Your task to perform on an android device: When is my next meeting? Image 0: 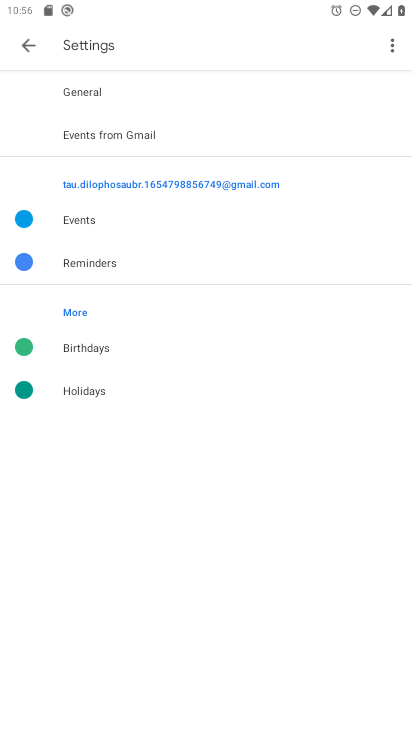
Step 0: drag from (210, 599) to (291, 310)
Your task to perform on an android device: When is my next meeting? Image 1: 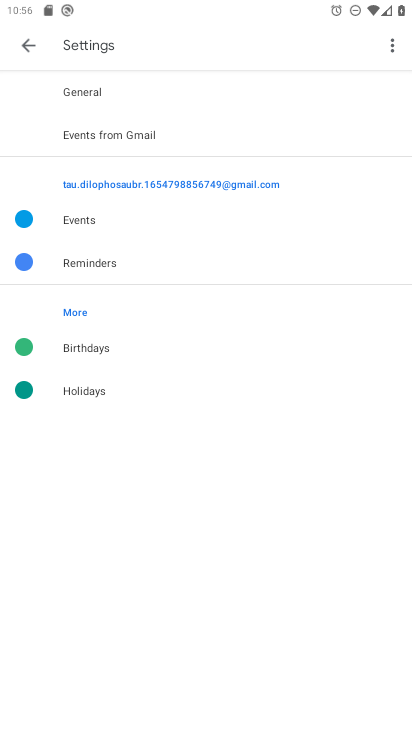
Step 1: press home button
Your task to perform on an android device: When is my next meeting? Image 2: 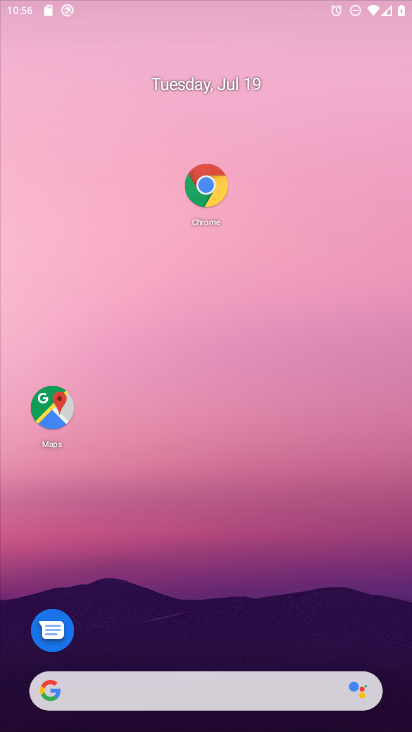
Step 2: drag from (205, 604) to (228, 260)
Your task to perform on an android device: When is my next meeting? Image 3: 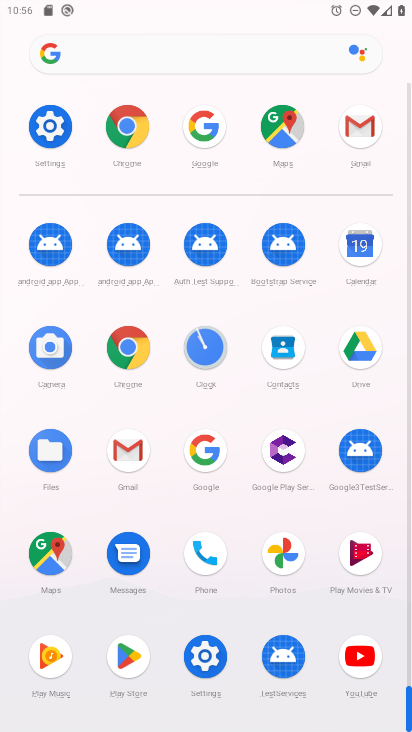
Step 3: click (356, 239)
Your task to perform on an android device: When is my next meeting? Image 4: 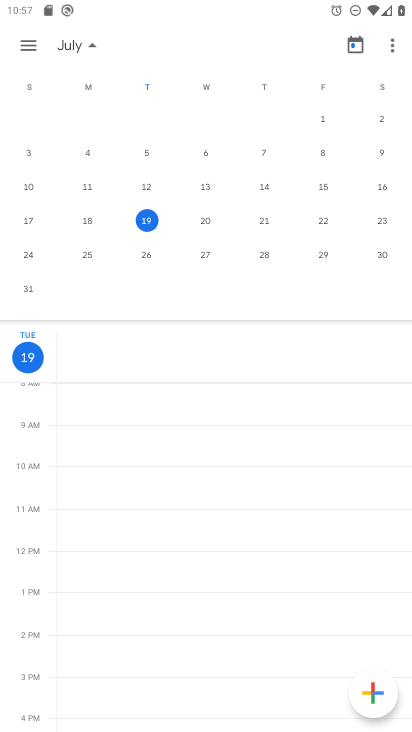
Step 4: click (32, 52)
Your task to perform on an android device: When is my next meeting? Image 5: 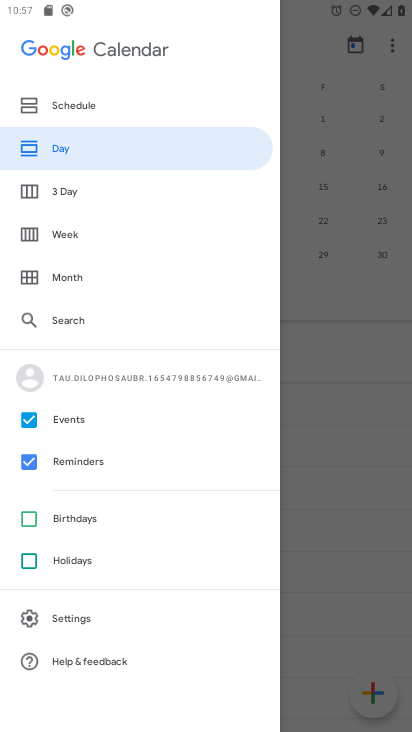
Step 5: click (329, 410)
Your task to perform on an android device: When is my next meeting? Image 6: 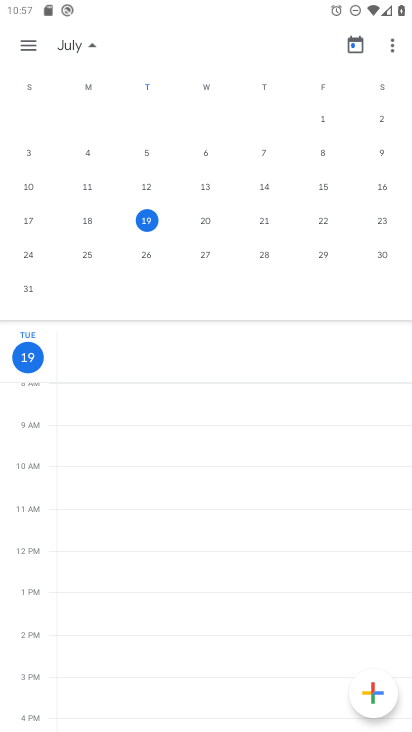
Step 6: task complete